Your task to perform on an android device: Open Chrome and go to the settings page Image 0: 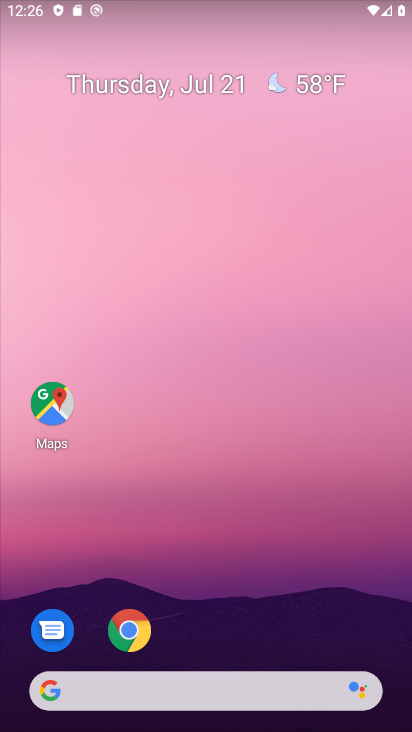
Step 0: drag from (205, 648) to (258, 93)
Your task to perform on an android device: Open Chrome and go to the settings page Image 1: 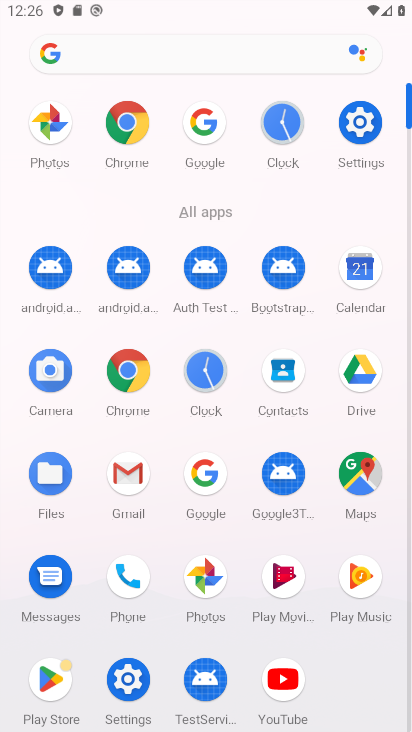
Step 1: click (126, 123)
Your task to perform on an android device: Open Chrome and go to the settings page Image 2: 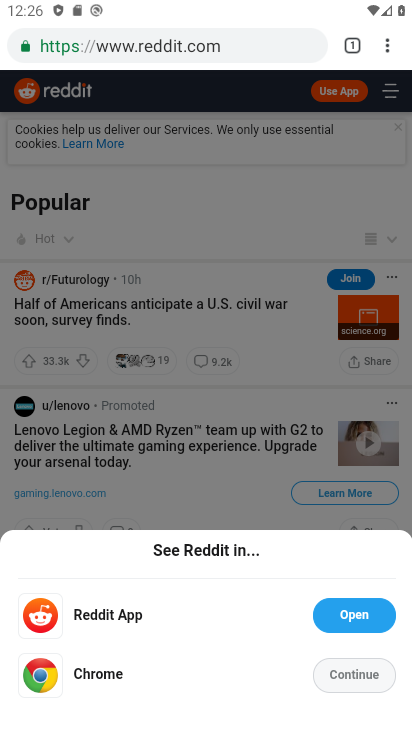
Step 2: click (385, 47)
Your task to perform on an android device: Open Chrome and go to the settings page Image 3: 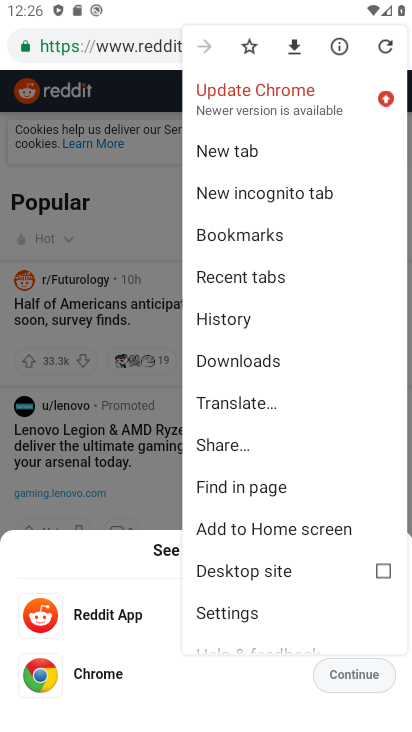
Step 3: click (243, 609)
Your task to perform on an android device: Open Chrome and go to the settings page Image 4: 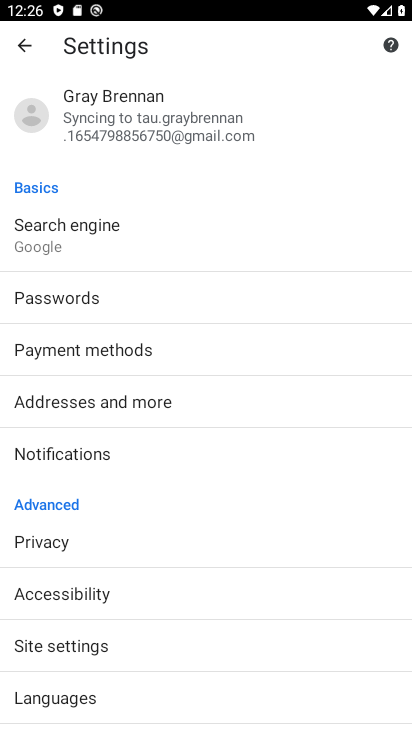
Step 4: task complete